Your task to perform on an android device: What's the weather? Image 0: 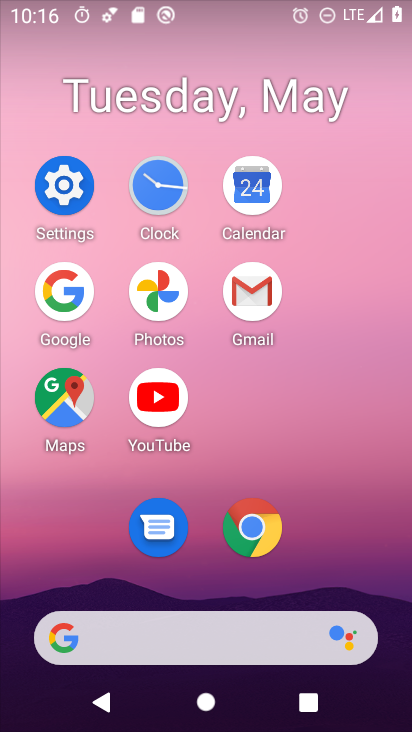
Step 0: click (66, 295)
Your task to perform on an android device: What's the weather? Image 1: 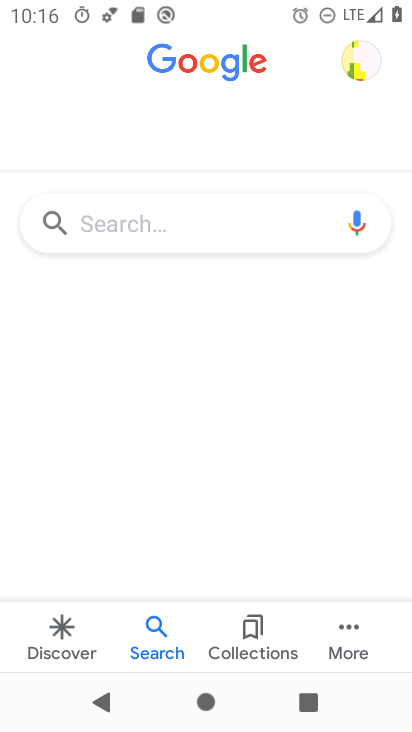
Step 1: click (131, 218)
Your task to perform on an android device: What's the weather? Image 2: 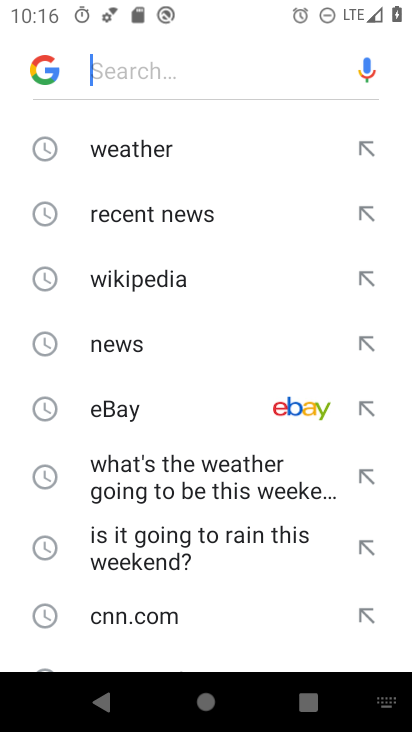
Step 2: click (135, 151)
Your task to perform on an android device: What's the weather? Image 3: 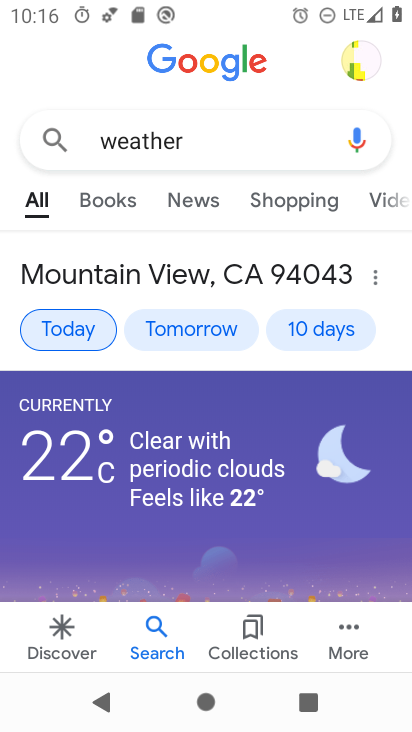
Step 3: task complete